Your task to perform on an android device: all mails in gmail Image 0: 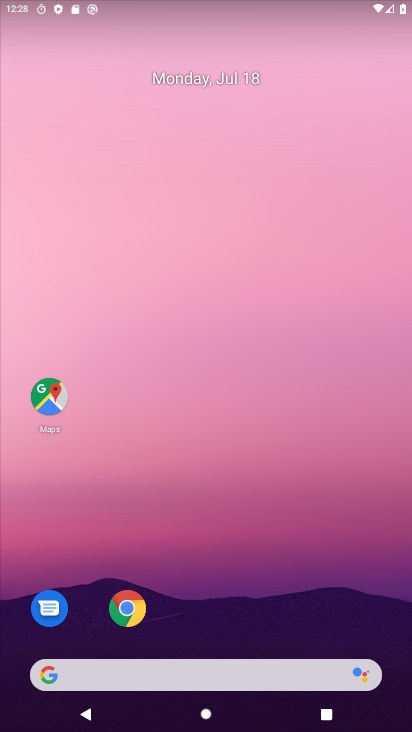
Step 0: drag from (318, 489) to (334, 30)
Your task to perform on an android device: all mails in gmail Image 1: 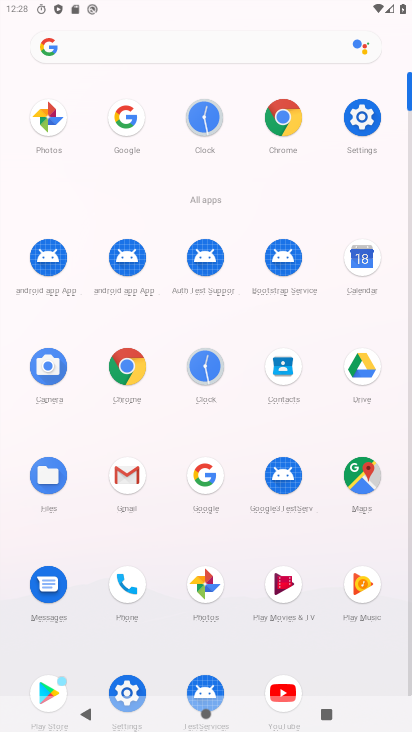
Step 1: click (130, 482)
Your task to perform on an android device: all mails in gmail Image 2: 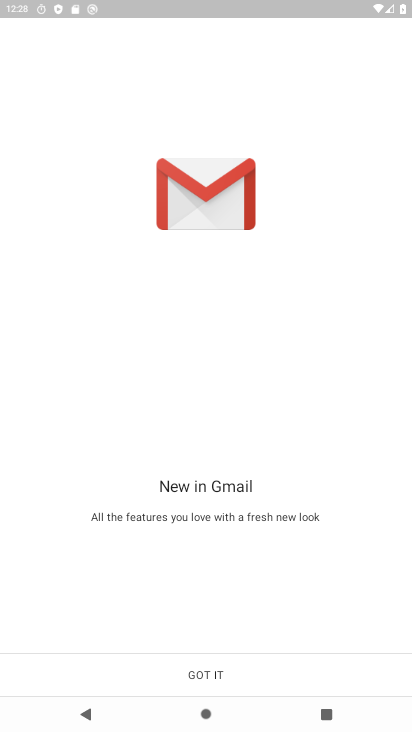
Step 2: click (194, 676)
Your task to perform on an android device: all mails in gmail Image 3: 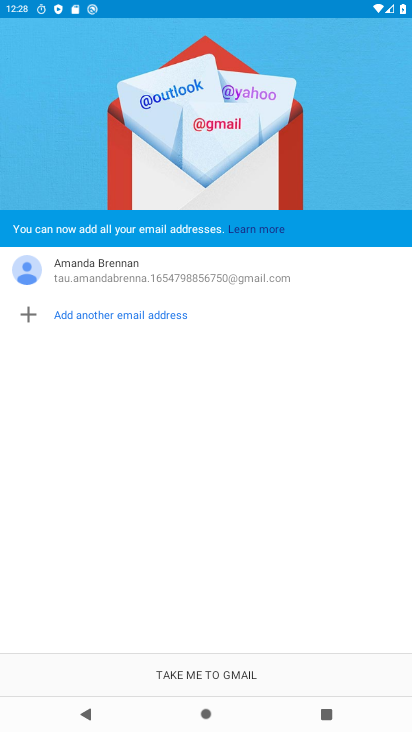
Step 3: click (202, 679)
Your task to perform on an android device: all mails in gmail Image 4: 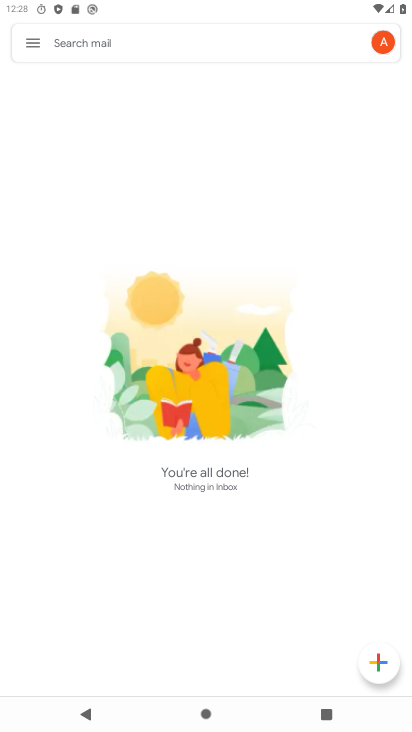
Step 4: task complete